Your task to perform on an android device: Play the last video I watched on Youtube Image 0: 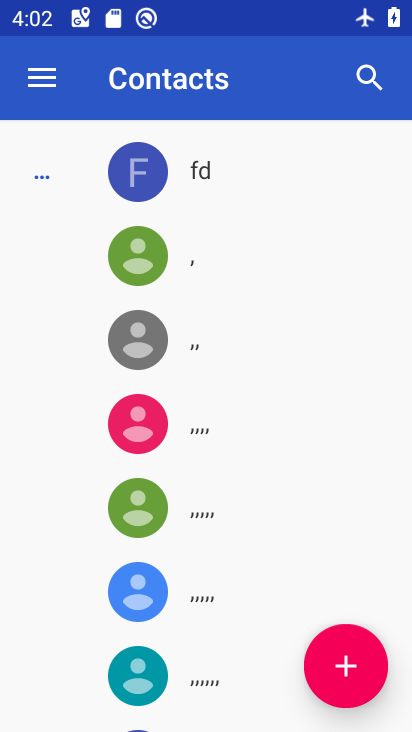
Step 0: press home button
Your task to perform on an android device: Play the last video I watched on Youtube Image 1: 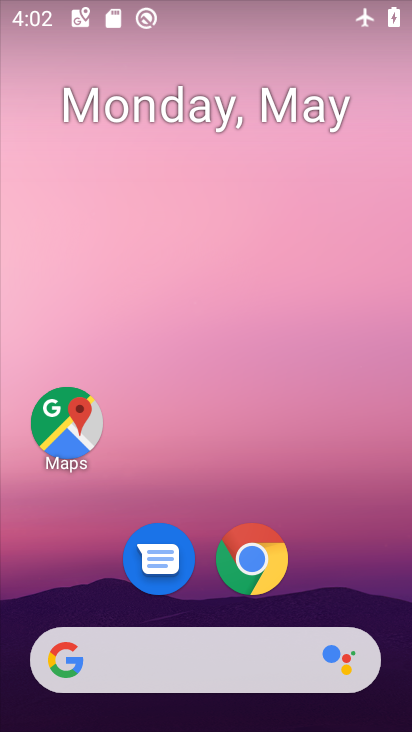
Step 1: drag from (315, 583) to (291, 76)
Your task to perform on an android device: Play the last video I watched on Youtube Image 2: 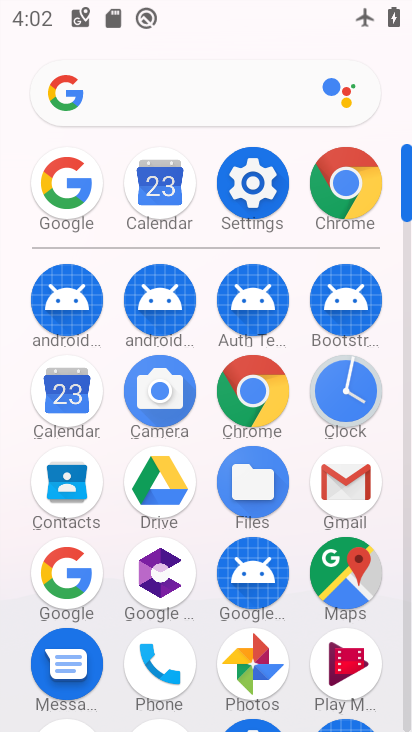
Step 2: drag from (185, 700) to (392, 325)
Your task to perform on an android device: Play the last video I watched on Youtube Image 3: 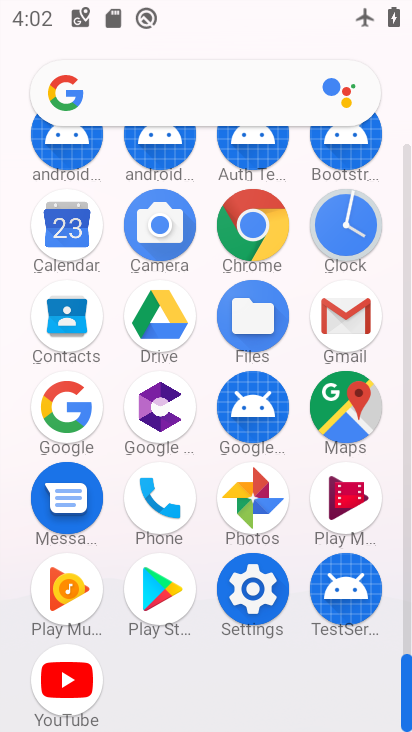
Step 3: click (74, 677)
Your task to perform on an android device: Play the last video I watched on Youtube Image 4: 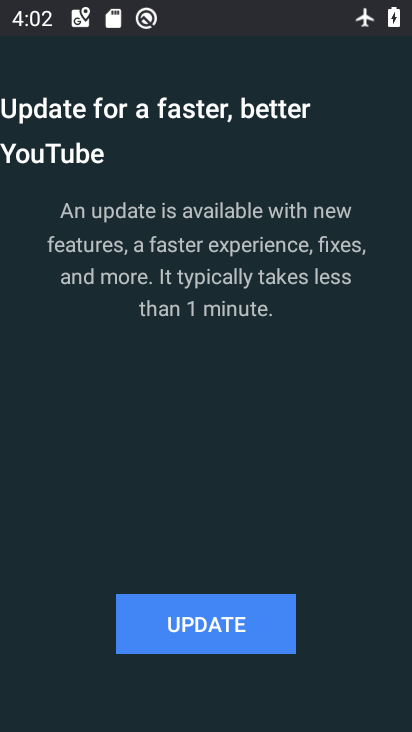
Step 4: click (208, 622)
Your task to perform on an android device: Play the last video I watched on Youtube Image 5: 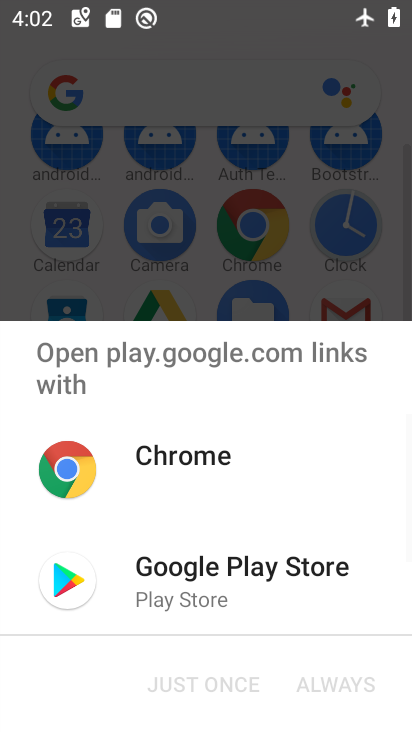
Step 5: click (200, 588)
Your task to perform on an android device: Play the last video I watched on Youtube Image 6: 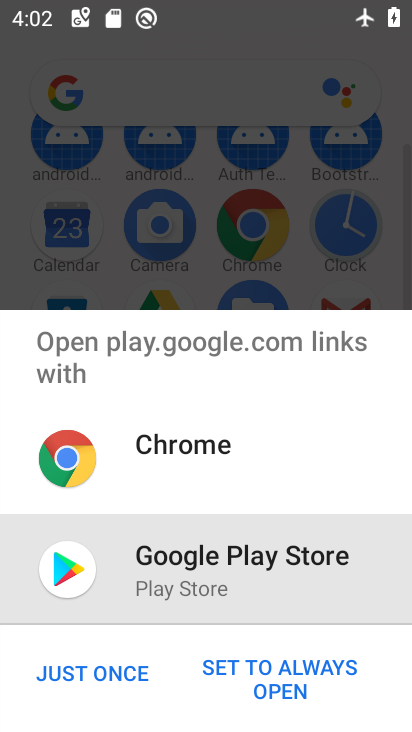
Step 6: click (276, 676)
Your task to perform on an android device: Play the last video I watched on Youtube Image 7: 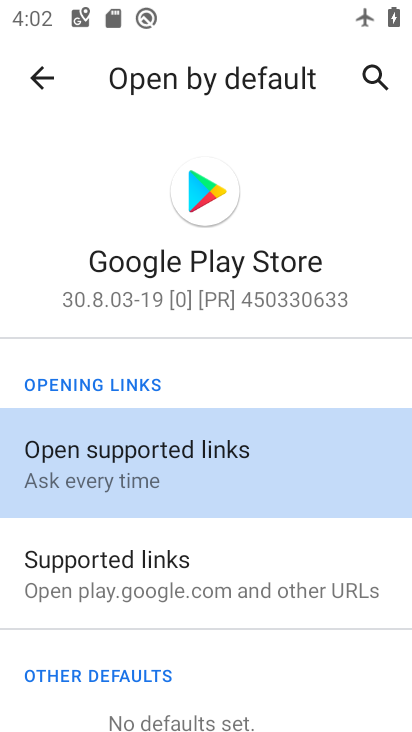
Step 7: click (163, 449)
Your task to perform on an android device: Play the last video I watched on Youtube Image 8: 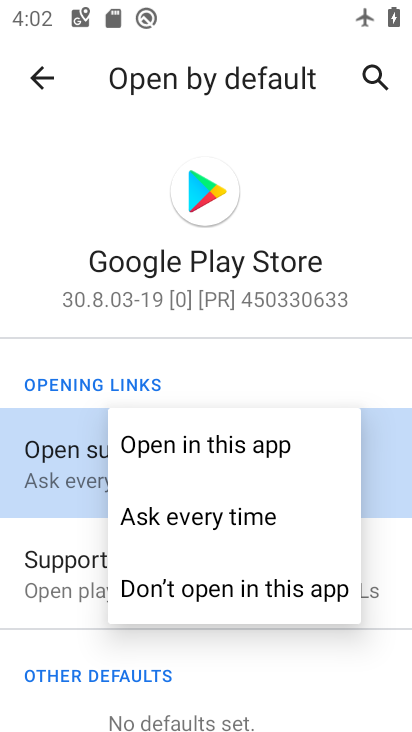
Step 8: click (161, 458)
Your task to perform on an android device: Play the last video I watched on Youtube Image 9: 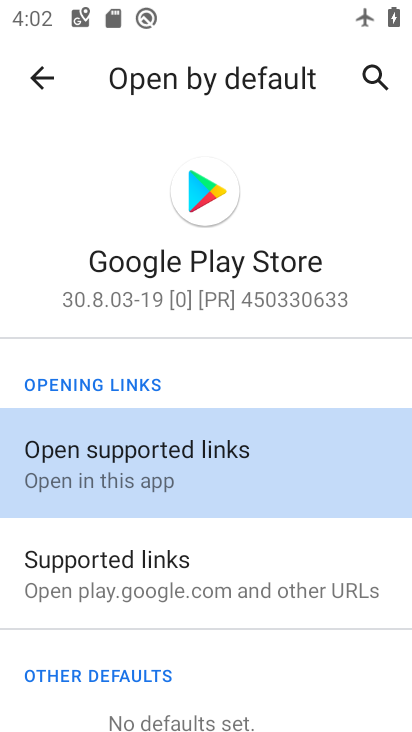
Step 9: click (48, 69)
Your task to perform on an android device: Play the last video I watched on Youtube Image 10: 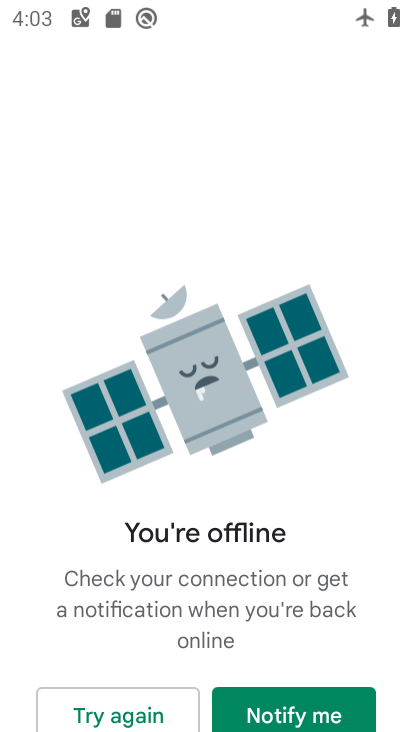
Step 10: task complete